Your task to perform on an android device: refresh tabs in the chrome app Image 0: 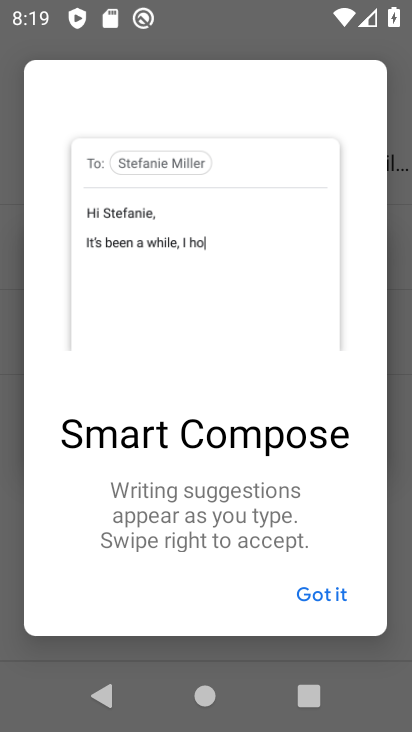
Step 0: press home button
Your task to perform on an android device: refresh tabs in the chrome app Image 1: 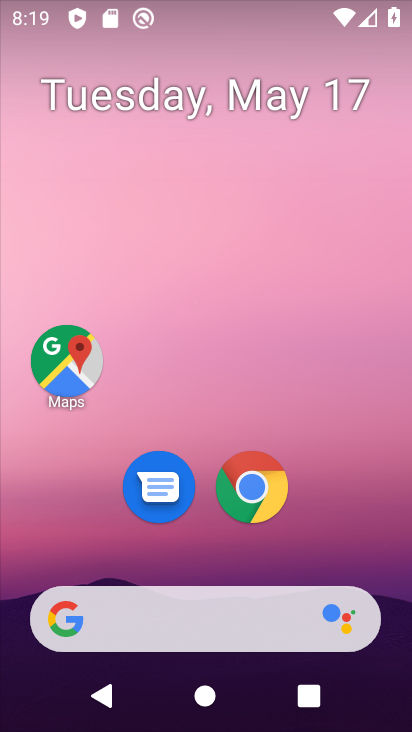
Step 1: drag from (289, 661) to (277, 95)
Your task to perform on an android device: refresh tabs in the chrome app Image 2: 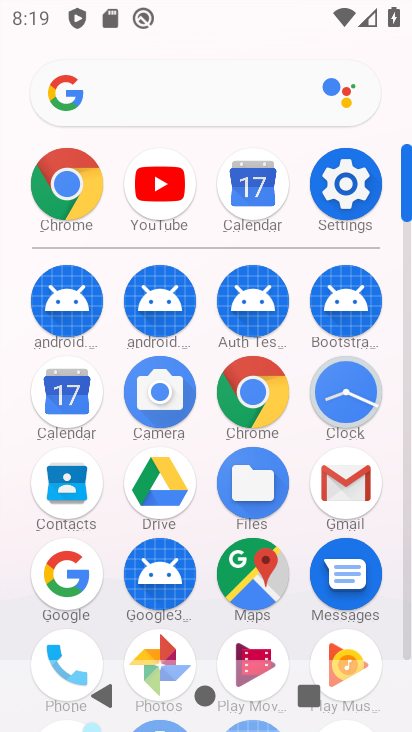
Step 2: click (250, 402)
Your task to perform on an android device: refresh tabs in the chrome app Image 3: 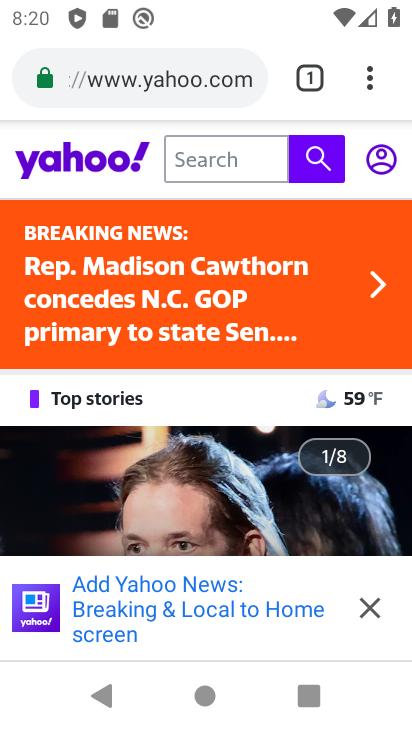
Step 3: click (354, 88)
Your task to perform on an android device: refresh tabs in the chrome app Image 4: 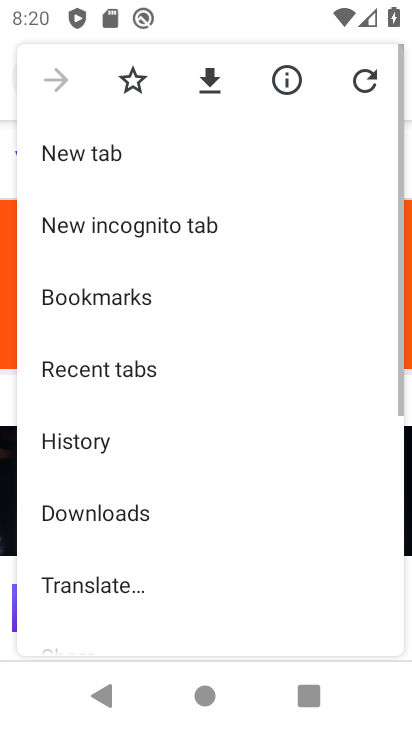
Step 4: click (371, 79)
Your task to perform on an android device: refresh tabs in the chrome app Image 5: 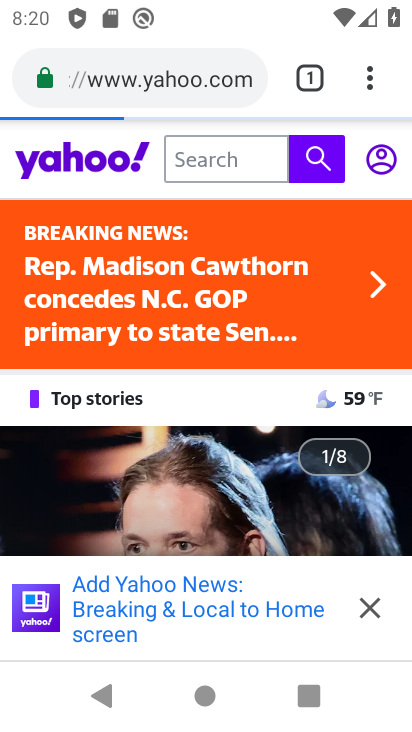
Step 5: task complete